Your task to perform on an android device: turn smart compose on in the gmail app Image 0: 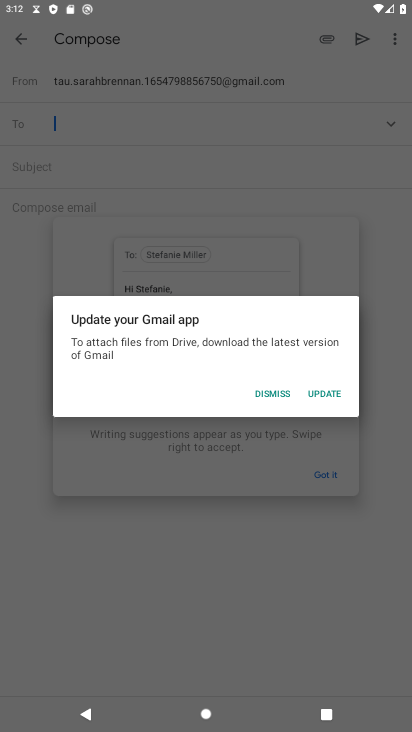
Step 0: press home button
Your task to perform on an android device: turn smart compose on in the gmail app Image 1: 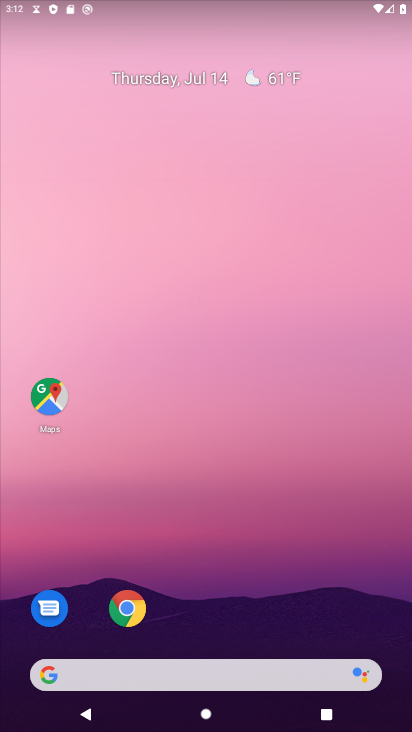
Step 1: drag from (187, 665) to (190, 18)
Your task to perform on an android device: turn smart compose on in the gmail app Image 2: 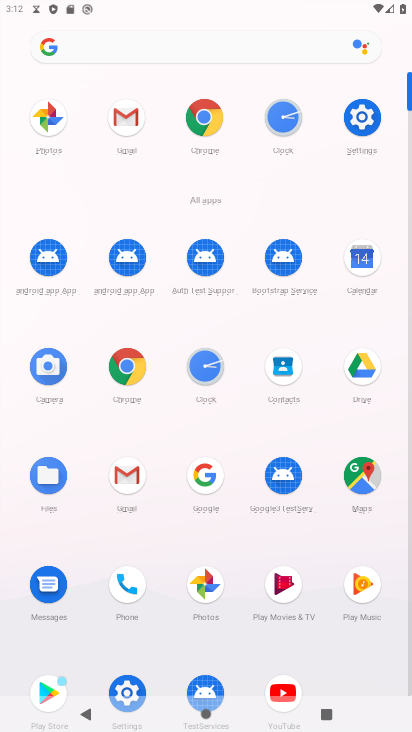
Step 2: click (130, 484)
Your task to perform on an android device: turn smart compose on in the gmail app Image 3: 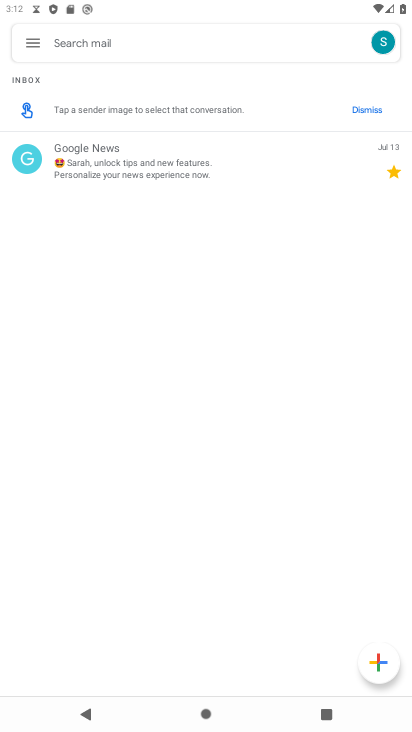
Step 3: click (31, 38)
Your task to perform on an android device: turn smart compose on in the gmail app Image 4: 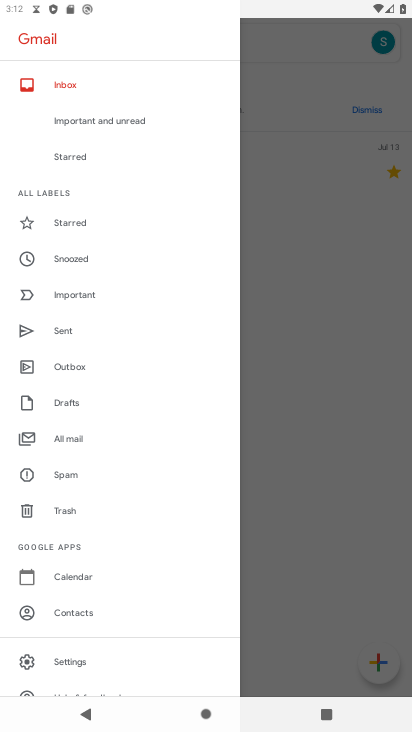
Step 4: click (69, 663)
Your task to perform on an android device: turn smart compose on in the gmail app Image 5: 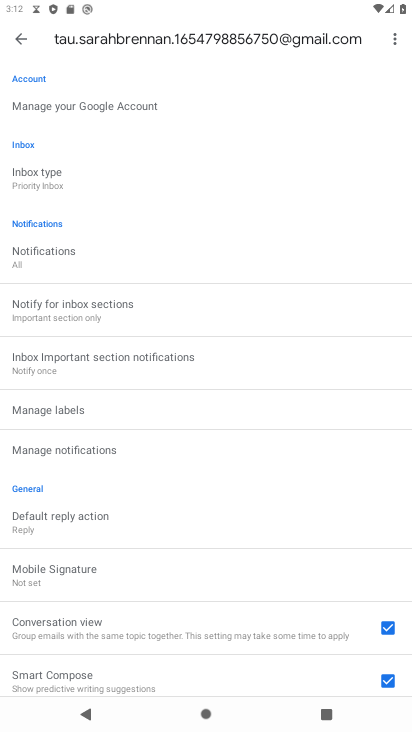
Step 5: task complete